Your task to perform on an android device: What is the news today? Image 0: 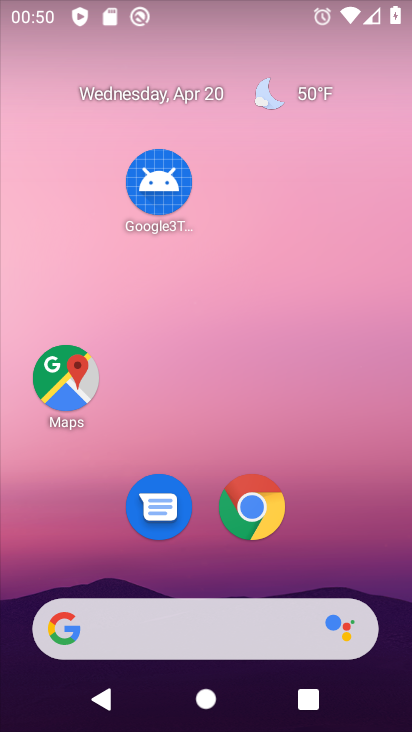
Step 0: drag from (14, 296) to (378, 376)
Your task to perform on an android device: What is the news today? Image 1: 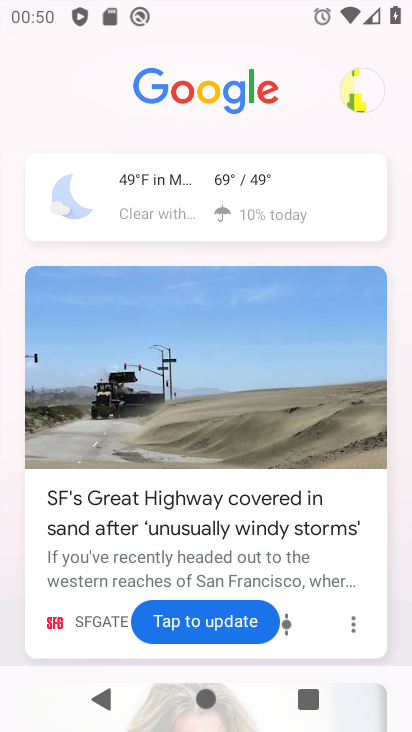
Step 1: drag from (253, 547) to (215, 61)
Your task to perform on an android device: What is the news today? Image 2: 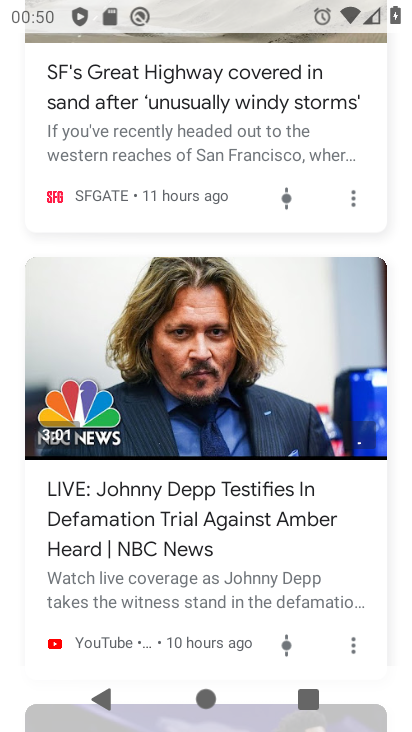
Step 2: click (201, 656)
Your task to perform on an android device: What is the news today? Image 3: 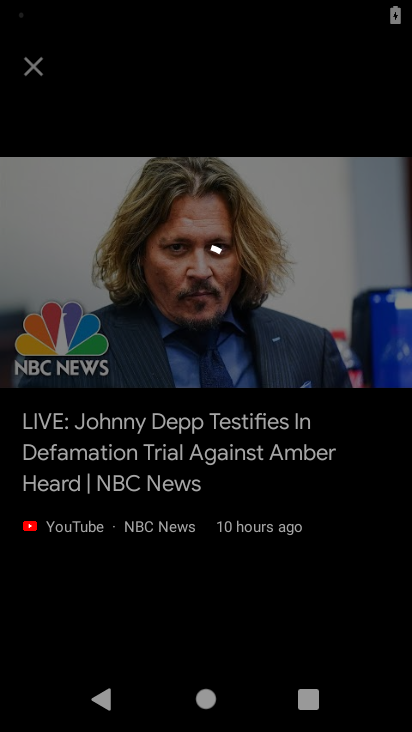
Step 3: task complete